Your task to perform on an android device: Open Wikipedia Image 0: 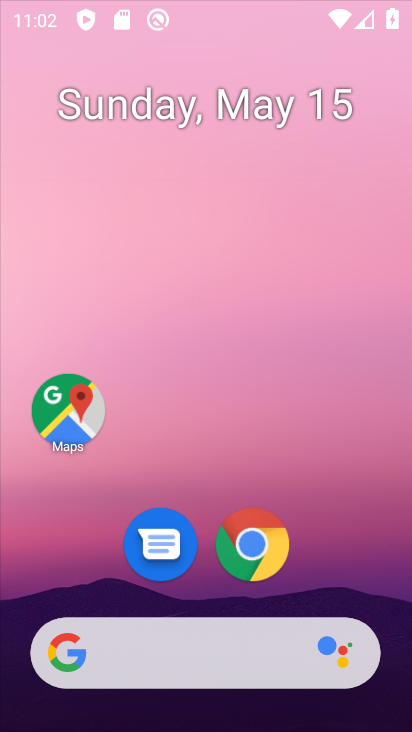
Step 0: click (295, 19)
Your task to perform on an android device: Open Wikipedia Image 1: 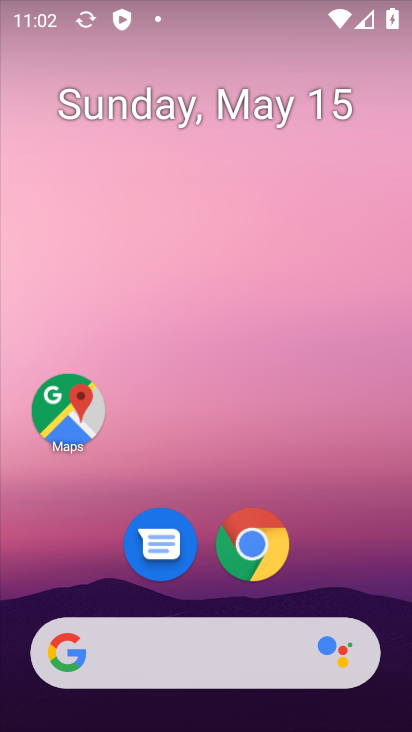
Step 1: click (271, 529)
Your task to perform on an android device: Open Wikipedia Image 2: 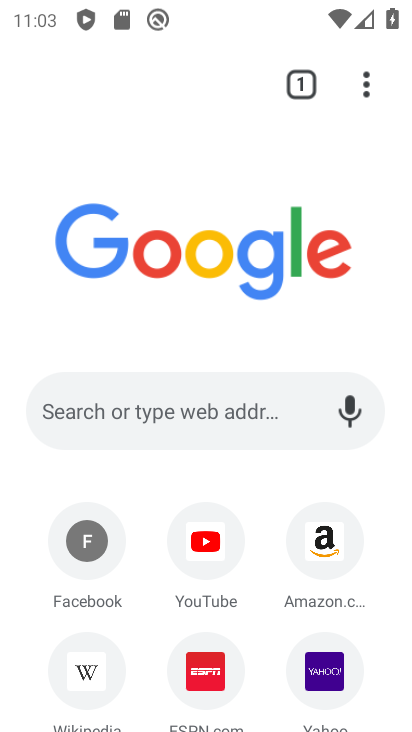
Step 2: click (95, 657)
Your task to perform on an android device: Open Wikipedia Image 3: 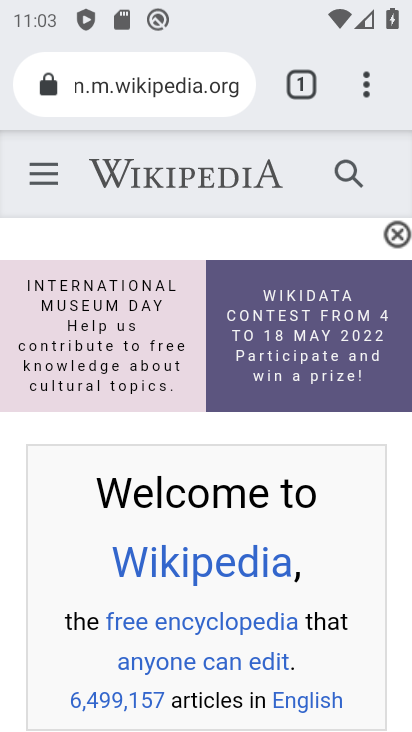
Step 3: task complete